Your task to perform on an android device: Open Google Chrome and open the bookmarks view Image 0: 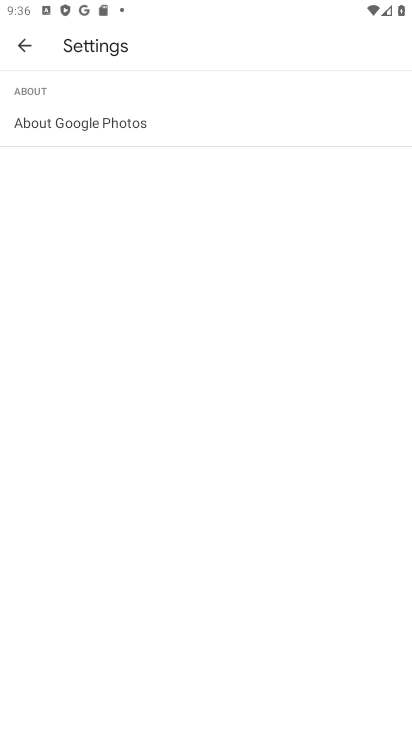
Step 0: press home button
Your task to perform on an android device: Open Google Chrome and open the bookmarks view Image 1: 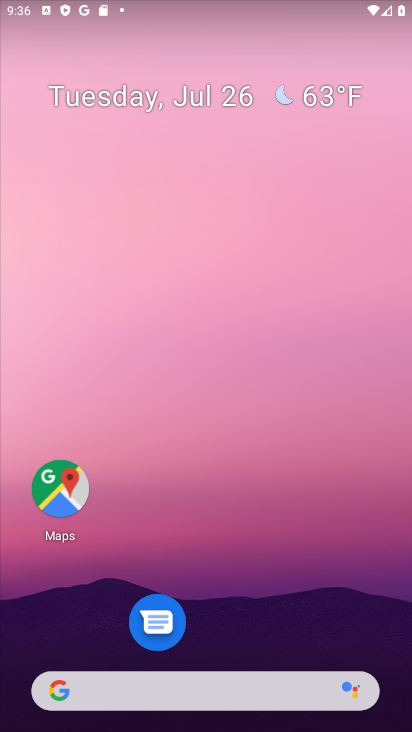
Step 1: drag from (285, 632) to (219, 180)
Your task to perform on an android device: Open Google Chrome and open the bookmarks view Image 2: 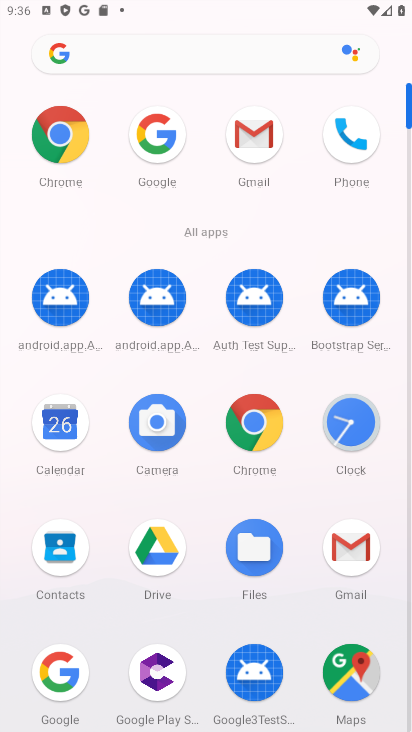
Step 2: drag from (285, 579) to (172, 176)
Your task to perform on an android device: Open Google Chrome and open the bookmarks view Image 3: 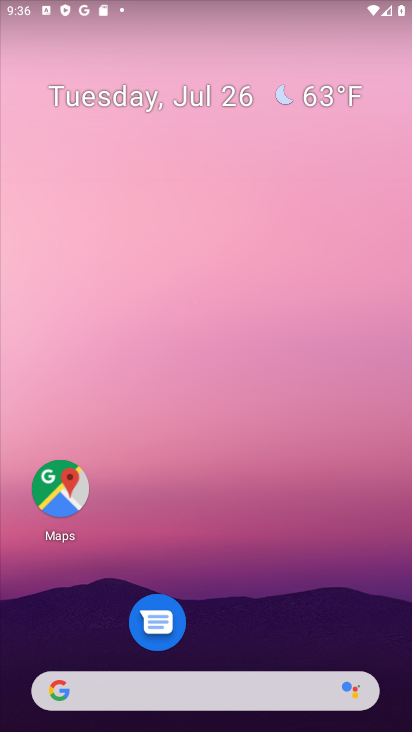
Step 3: drag from (317, 600) to (136, 32)
Your task to perform on an android device: Open Google Chrome and open the bookmarks view Image 4: 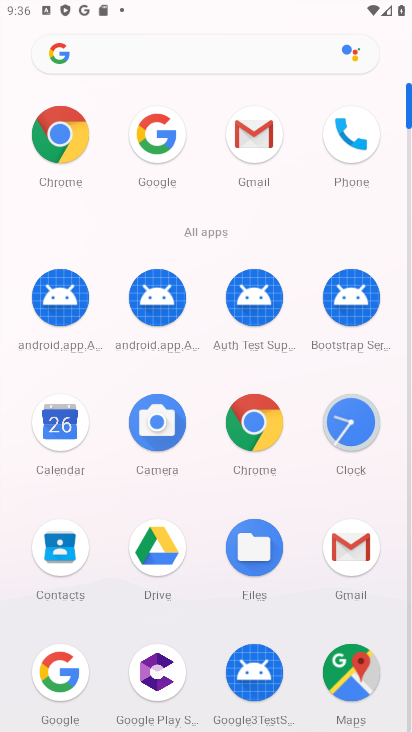
Step 4: click (71, 134)
Your task to perform on an android device: Open Google Chrome and open the bookmarks view Image 5: 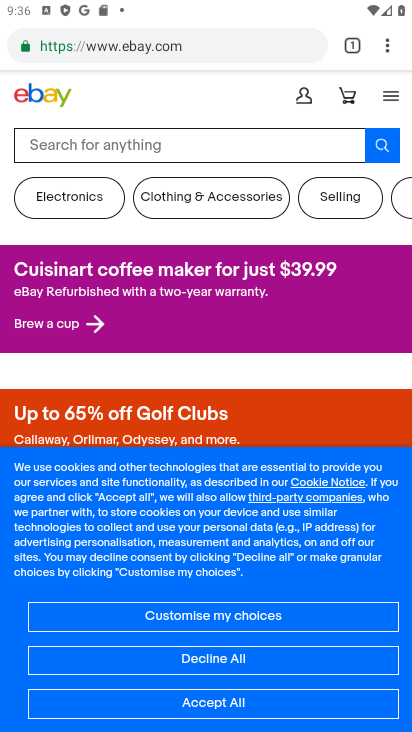
Step 5: drag from (387, 39) to (247, 171)
Your task to perform on an android device: Open Google Chrome and open the bookmarks view Image 6: 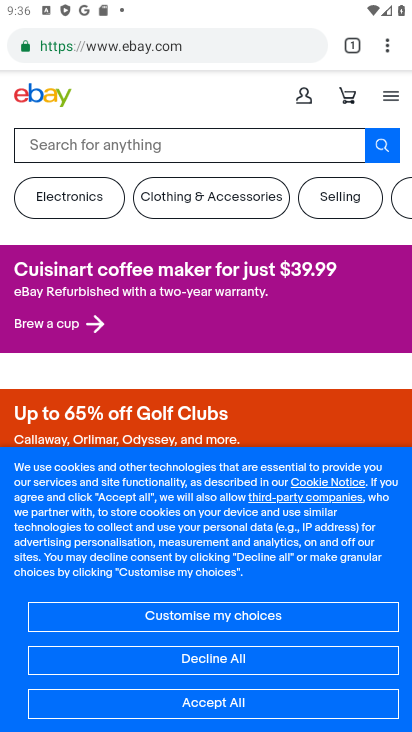
Step 6: click (247, 171)
Your task to perform on an android device: Open Google Chrome and open the bookmarks view Image 7: 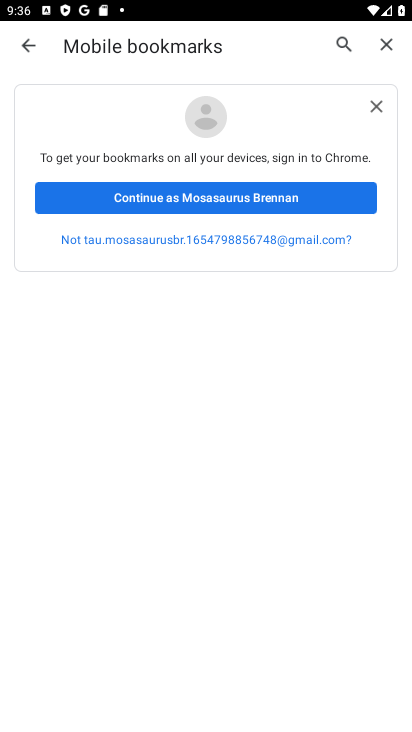
Step 7: click (223, 201)
Your task to perform on an android device: Open Google Chrome and open the bookmarks view Image 8: 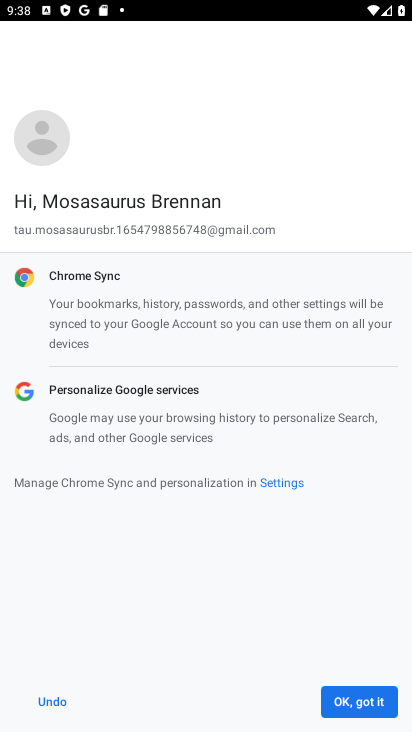
Step 8: click (364, 704)
Your task to perform on an android device: Open Google Chrome and open the bookmarks view Image 9: 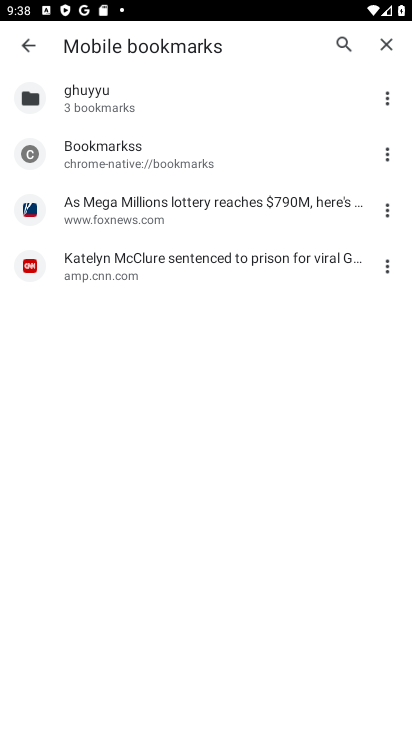
Step 9: task complete